Your task to perform on an android device: toggle location history Image 0: 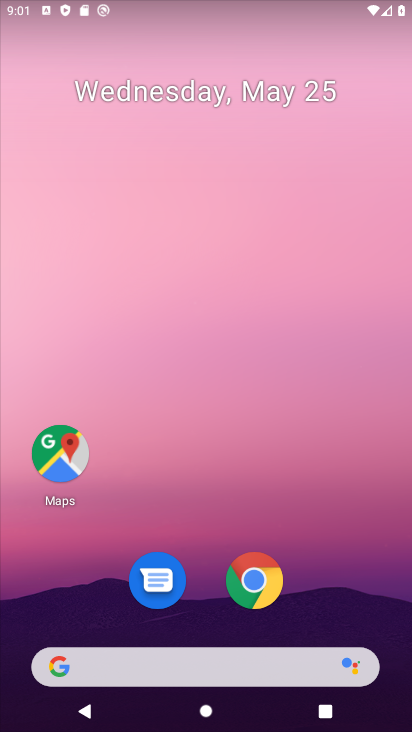
Step 0: press home button
Your task to perform on an android device: toggle location history Image 1: 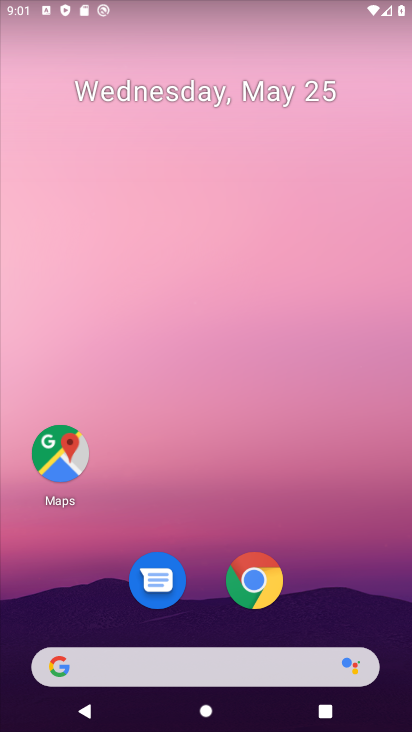
Step 1: drag from (14, 666) to (245, 116)
Your task to perform on an android device: toggle location history Image 2: 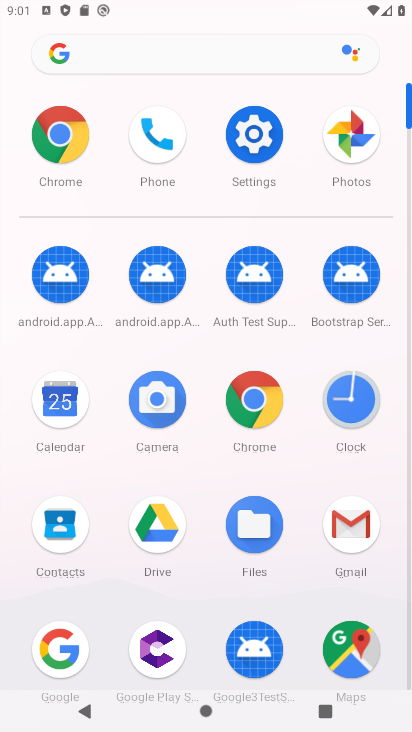
Step 2: click (258, 134)
Your task to perform on an android device: toggle location history Image 3: 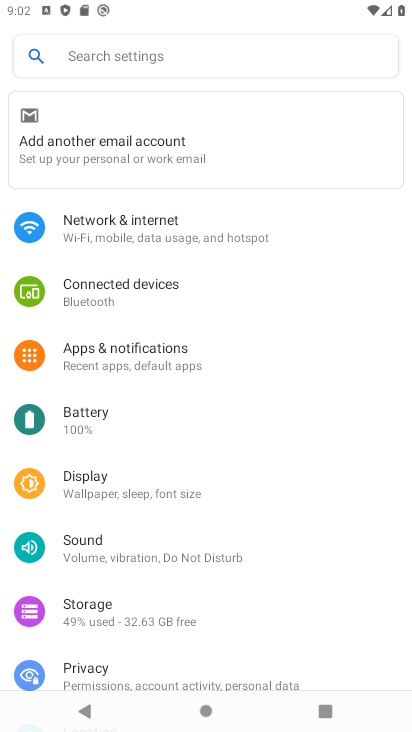
Step 3: drag from (28, 553) to (222, 162)
Your task to perform on an android device: toggle location history Image 4: 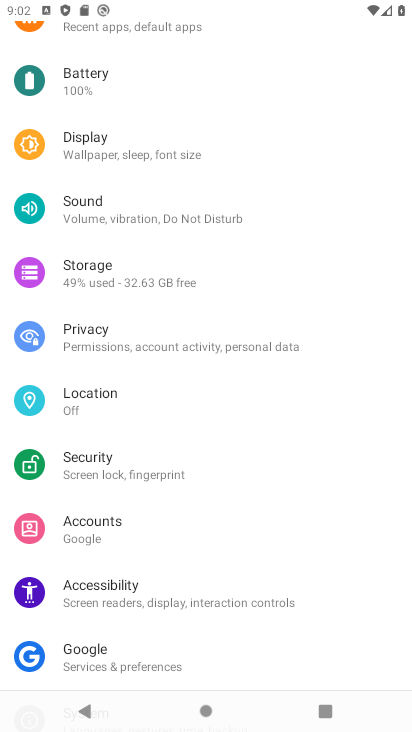
Step 4: click (120, 397)
Your task to perform on an android device: toggle location history Image 5: 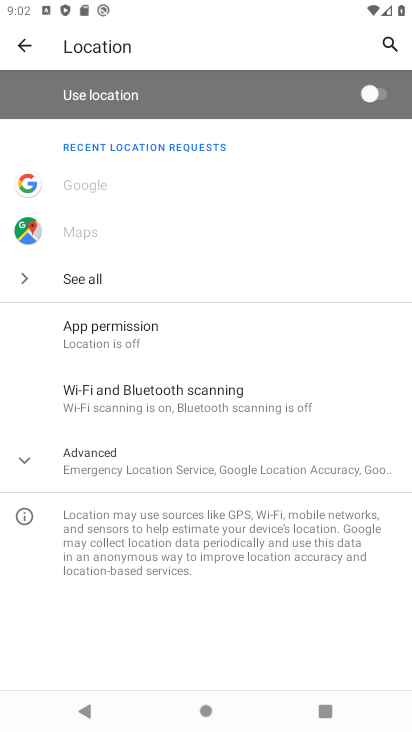
Step 5: click (187, 473)
Your task to perform on an android device: toggle location history Image 6: 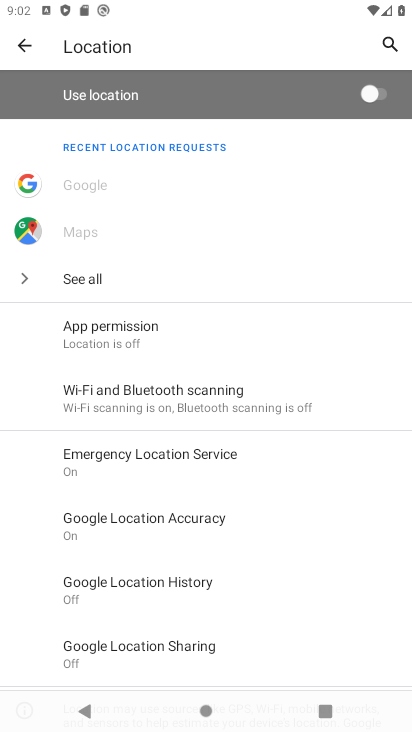
Step 6: click (199, 575)
Your task to perform on an android device: toggle location history Image 7: 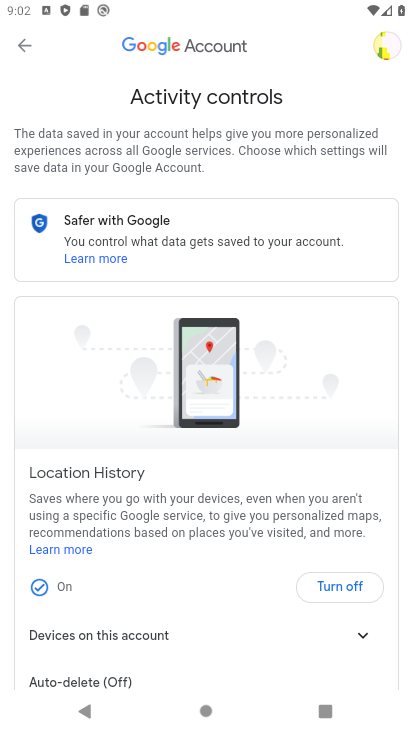
Step 7: click (343, 587)
Your task to perform on an android device: toggle location history Image 8: 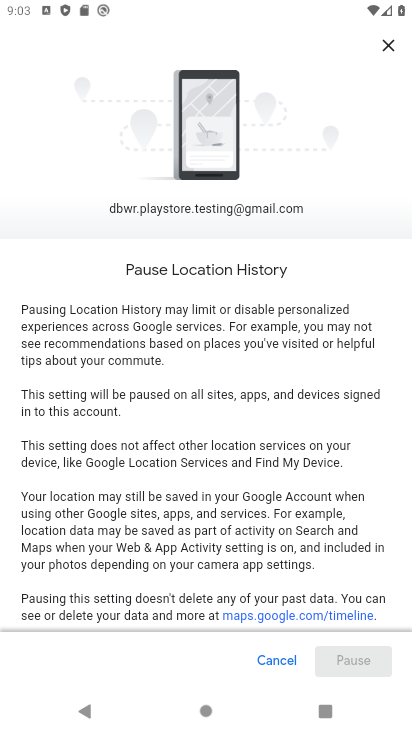
Step 8: drag from (73, 619) to (285, 11)
Your task to perform on an android device: toggle location history Image 9: 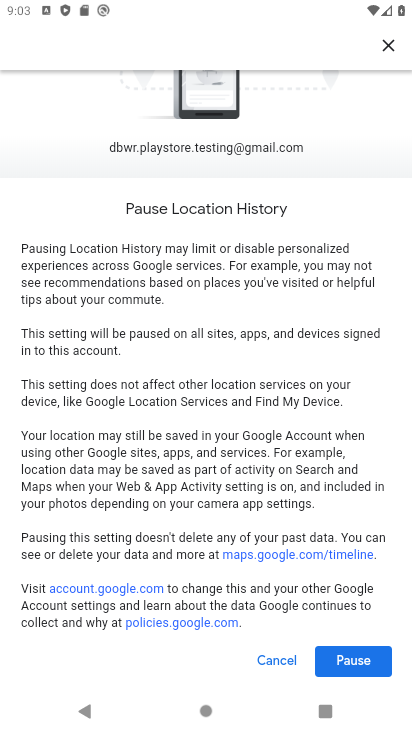
Step 9: click (377, 665)
Your task to perform on an android device: toggle location history Image 10: 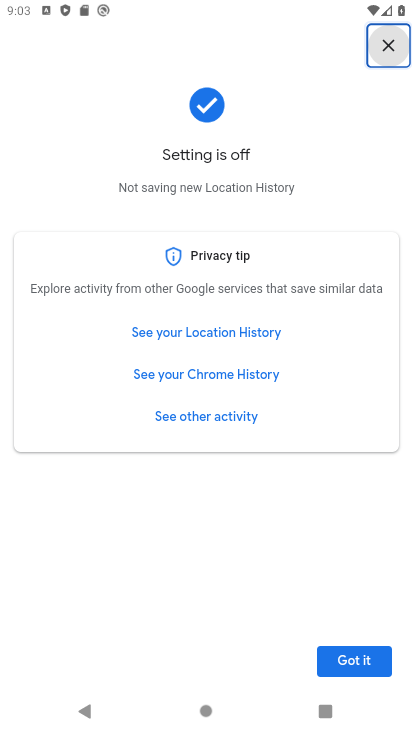
Step 10: task complete